Your task to perform on an android device: uninstall "Duolingo: language lessons" Image 0: 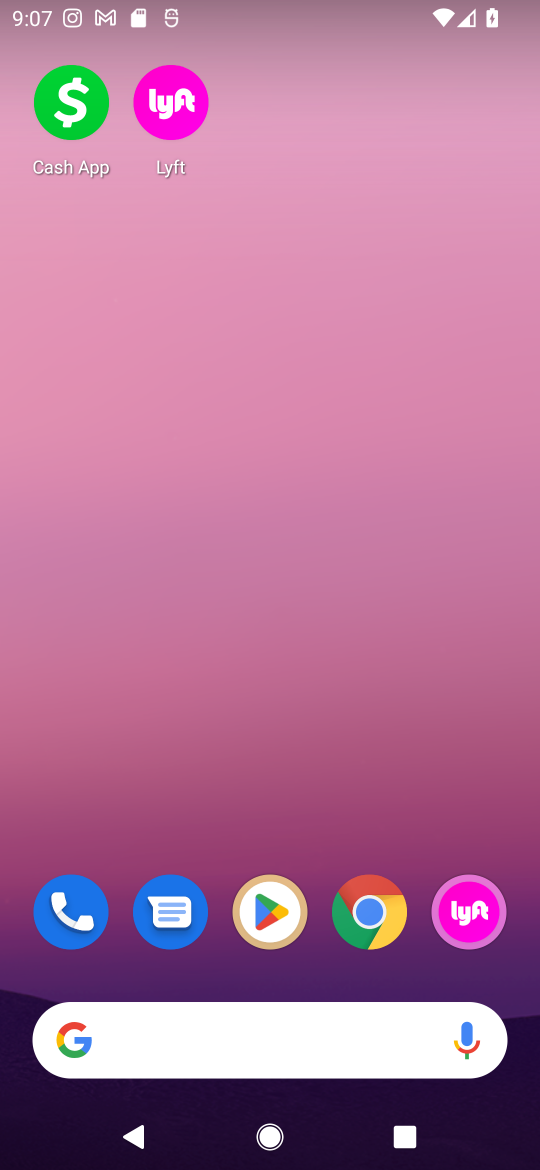
Step 0: click (276, 923)
Your task to perform on an android device: uninstall "Duolingo: language lessons" Image 1: 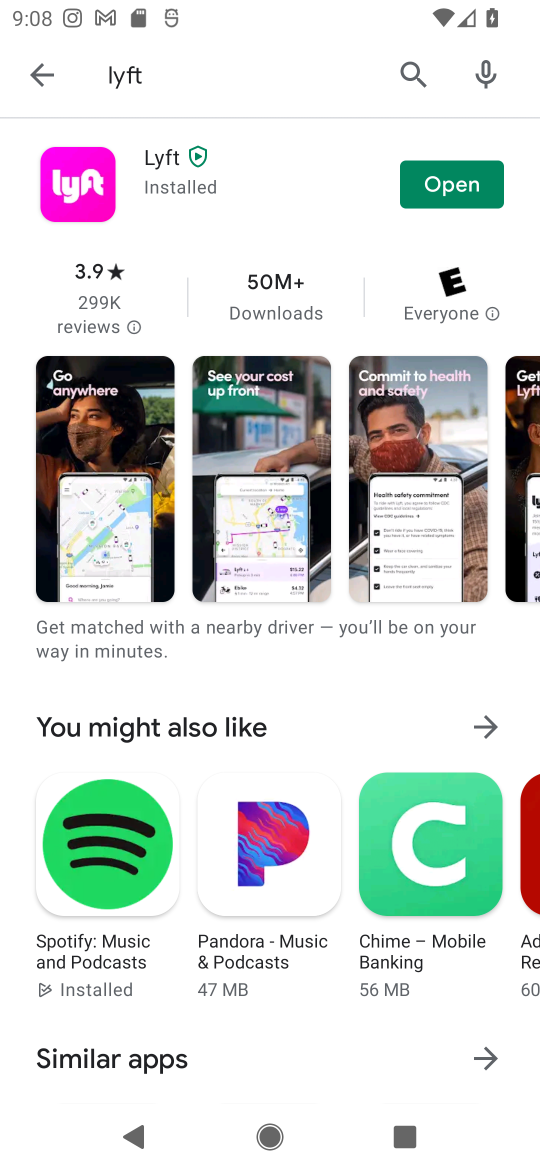
Step 1: click (413, 73)
Your task to perform on an android device: uninstall "Duolingo: language lessons" Image 2: 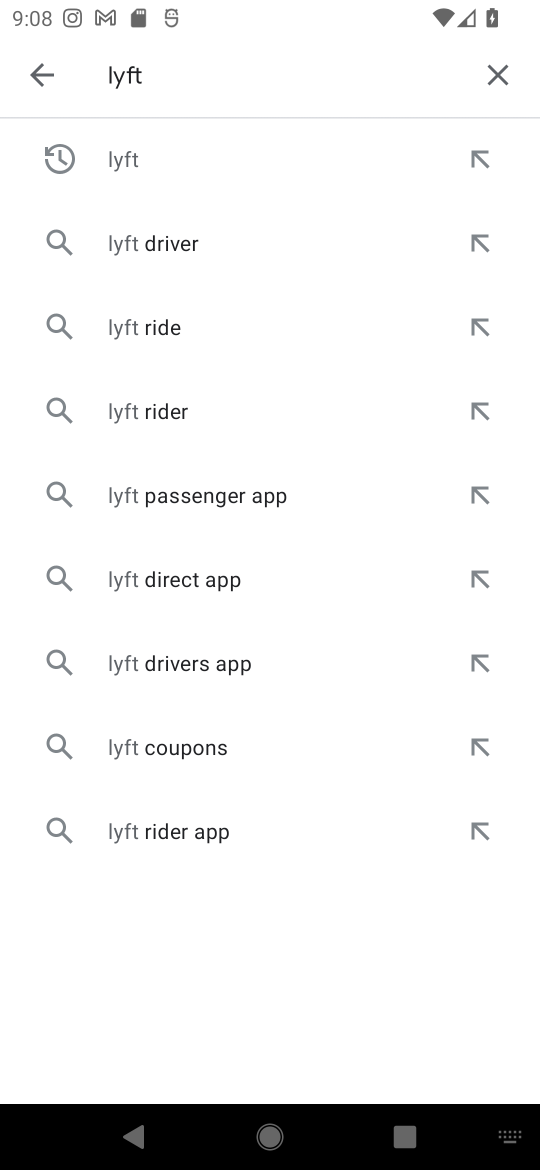
Step 2: click (496, 68)
Your task to perform on an android device: uninstall "Duolingo: language lessons" Image 3: 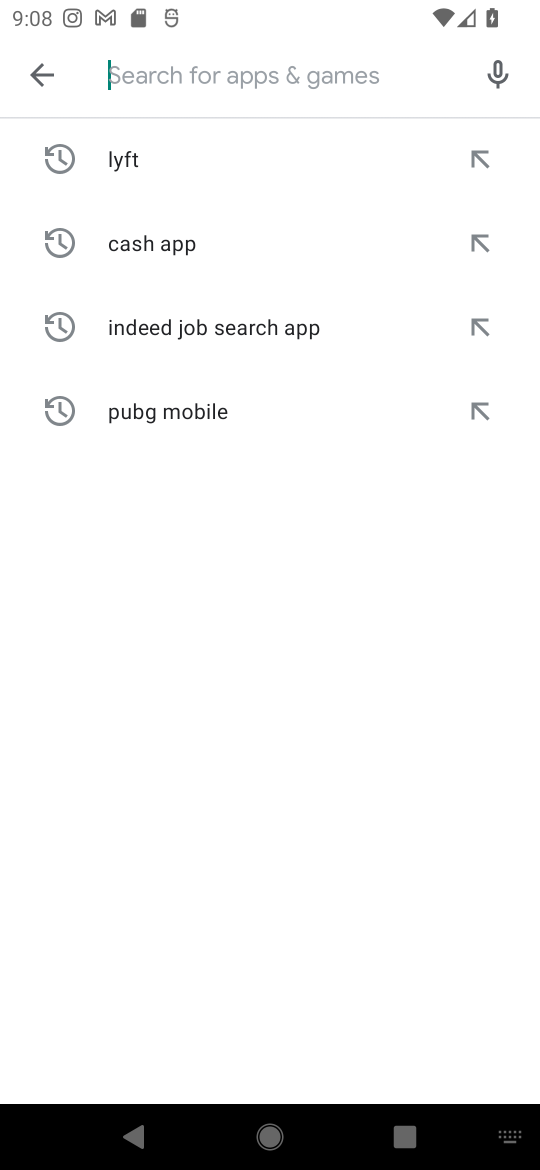
Step 3: type "Duolingo: language lessons"
Your task to perform on an android device: uninstall "Duolingo: language lessons" Image 4: 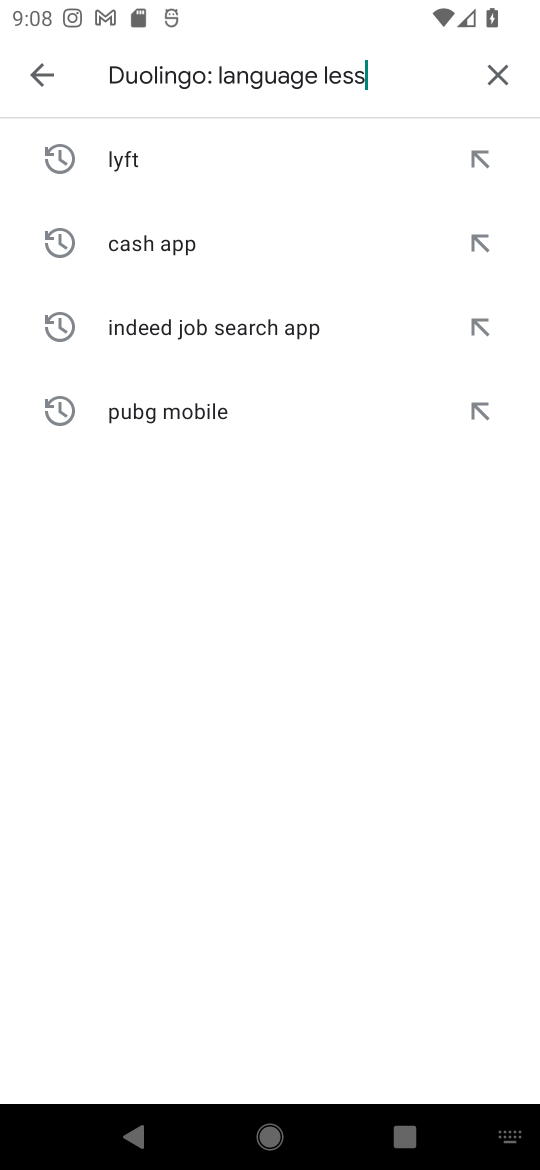
Step 4: type ""
Your task to perform on an android device: uninstall "Duolingo: language lessons" Image 5: 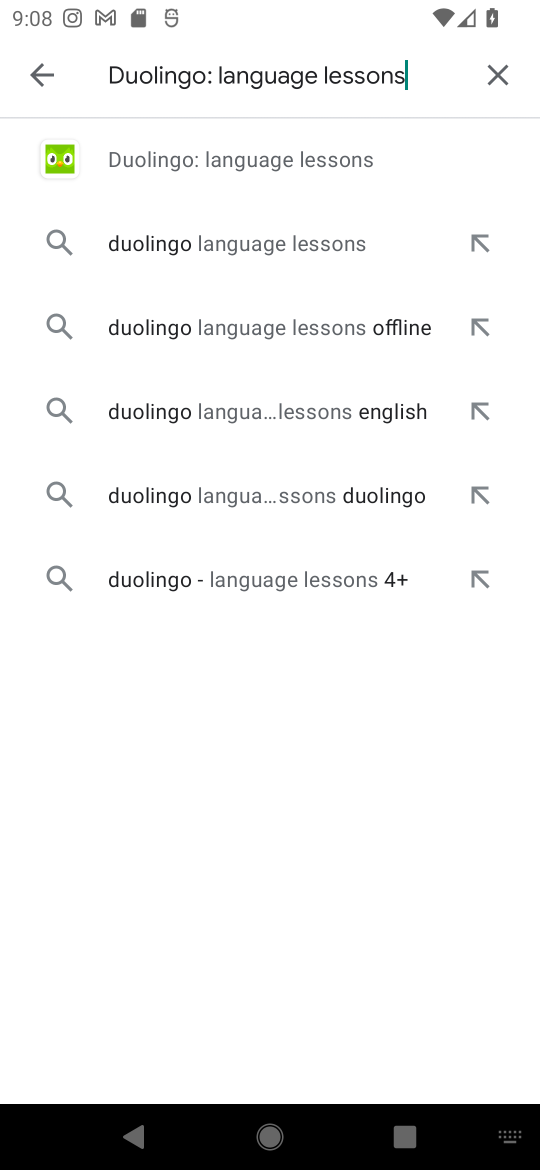
Step 5: click (345, 152)
Your task to perform on an android device: uninstall "Duolingo: language lessons" Image 6: 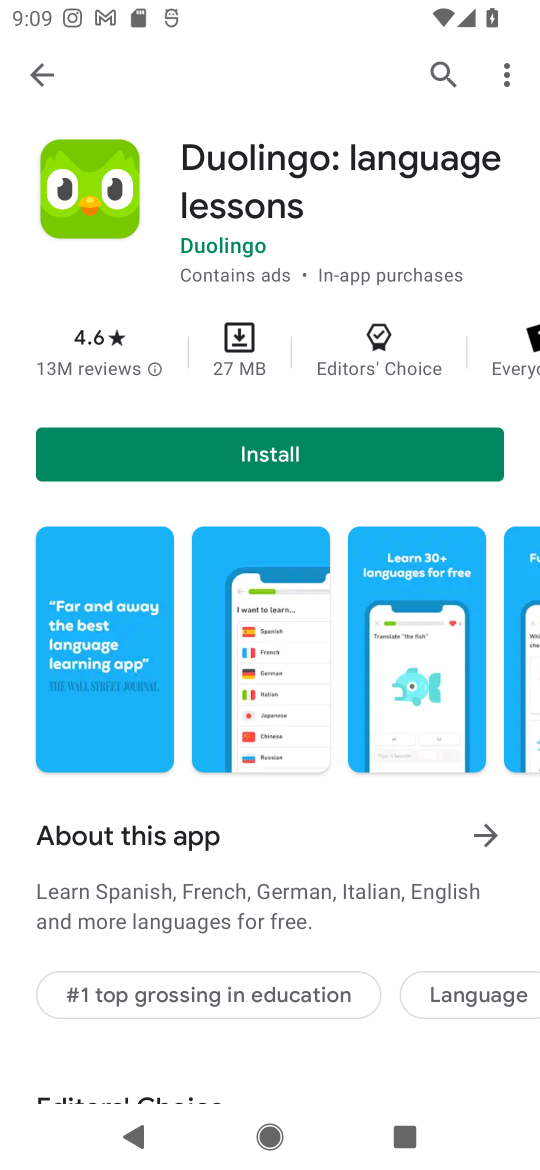
Step 6: task complete